Your task to perform on an android device: uninstall "Google Keep" Image 0: 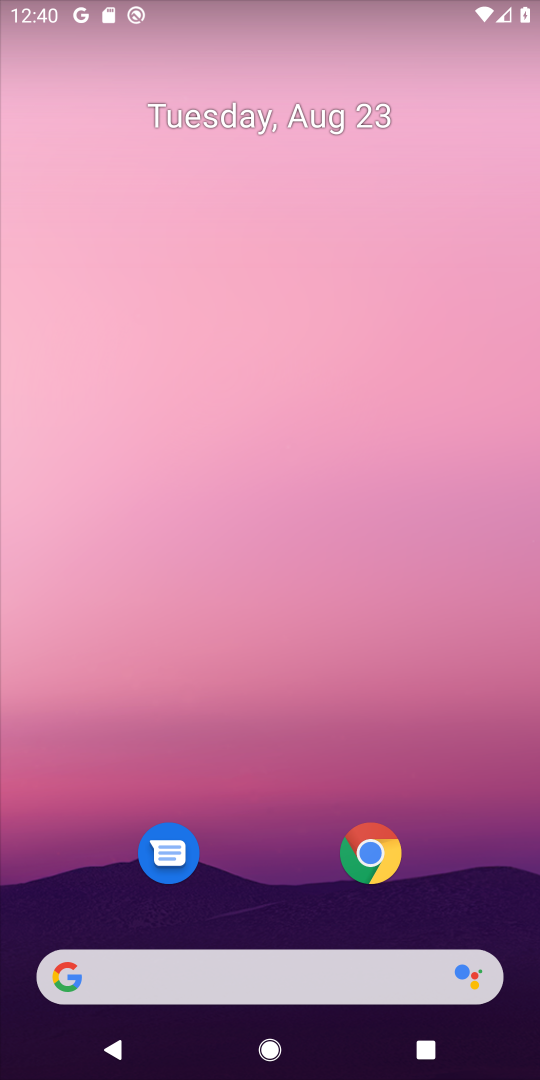
Step 0: drag from (499, 910) to (475, 221)
Your task to perform on an android device: uninstall "Google Keep" Image 1: 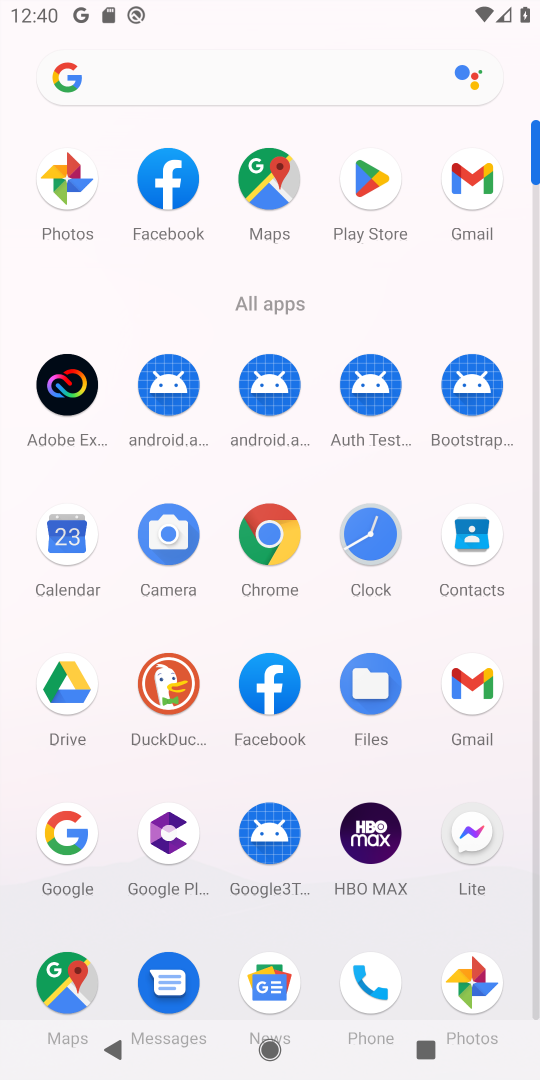
Step 1: drag from (312, 925) to (321, 520)
Your task to perform on an android device: uninstall "Google Keep" Image 2: 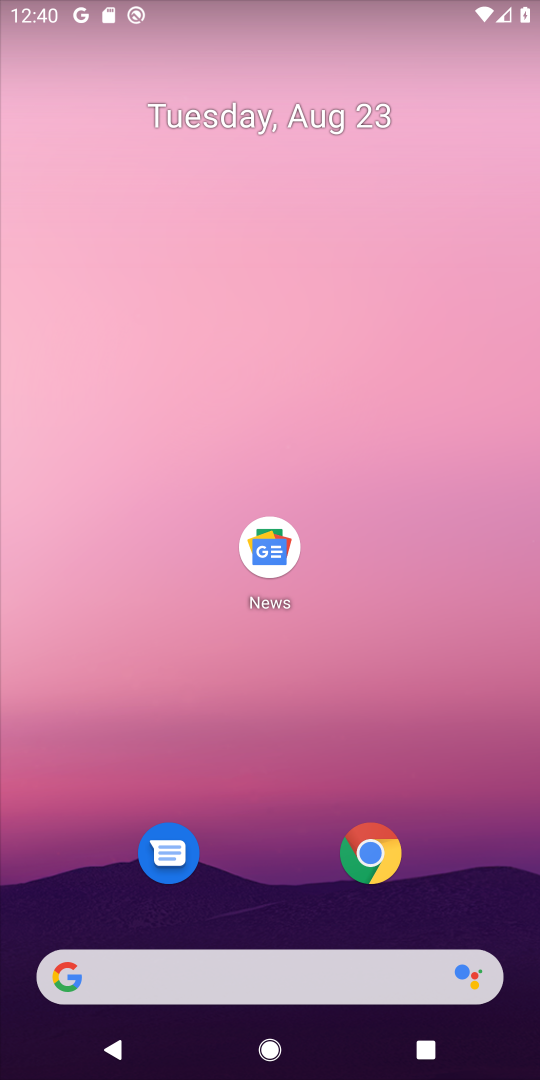
Step 2: drag from (434, 911) to (386, 66)
Your task to perform on an android device: uninstall "Google Keep" Image 3: 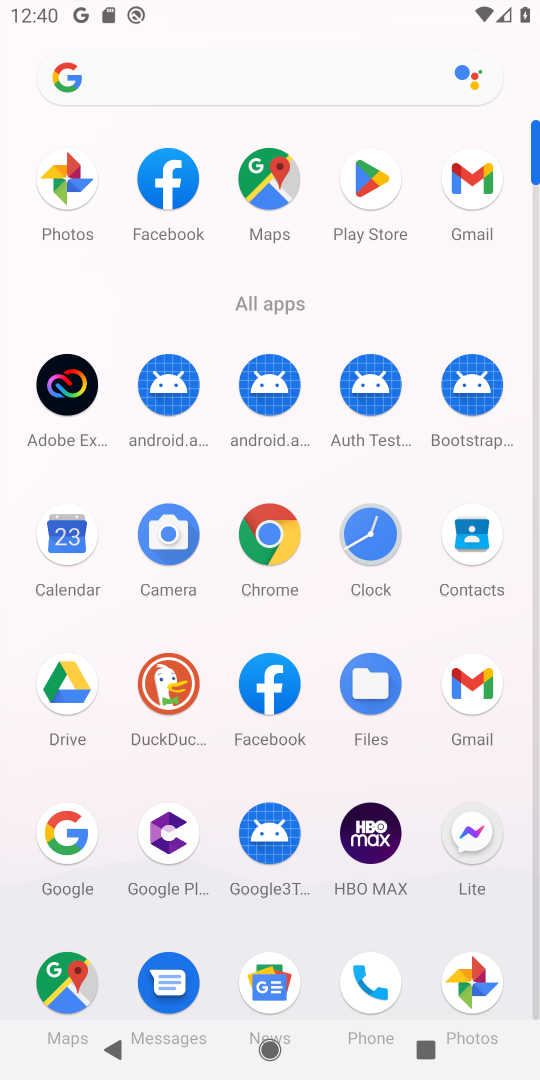
Step 3: drag from (317, 933) to (306, 306)
Your task to perform on an android device: uninstall "Google Keep" Image 4: 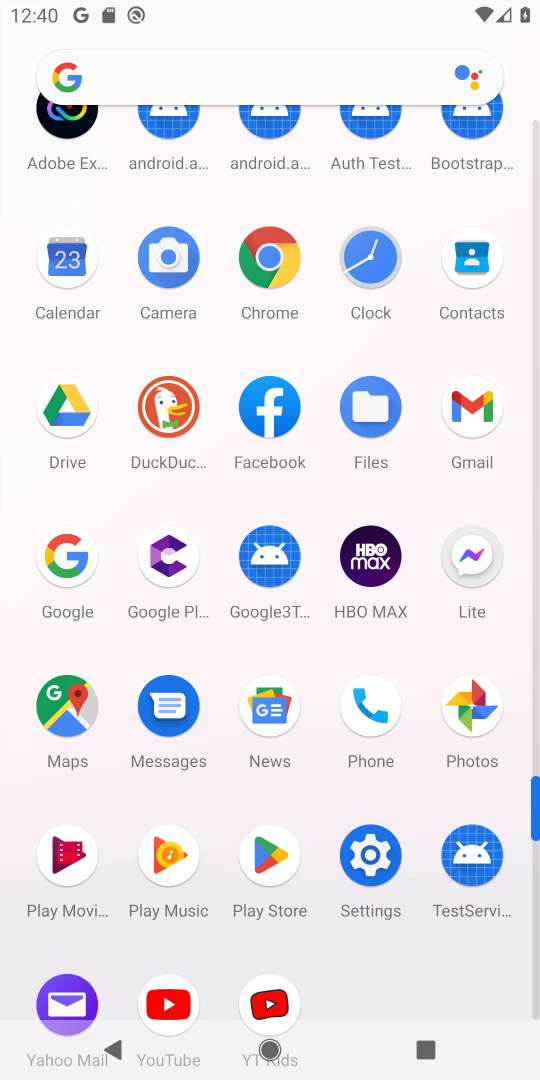
Step 4: click (272, 858)
Your task to perform on an android device: uninstall "Google Keep" Image 5: 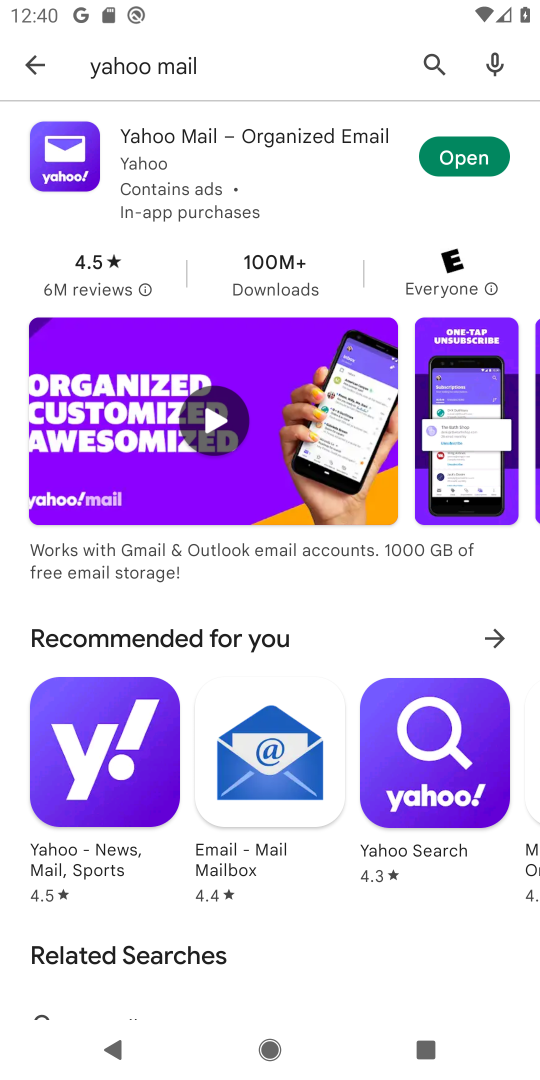
Step 5: click (435, 63)
Your task to perform on an android device: uninstall "Google Keep" Image 6: 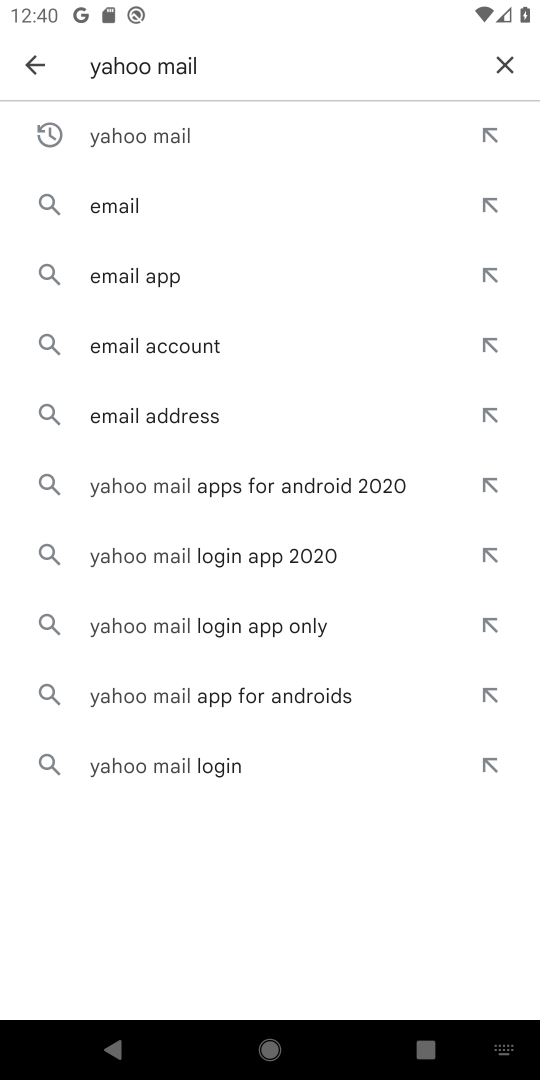
Step 6: click (501, 64)
Your task to perform on an android device: uninstall "Google Keep" Image 7: 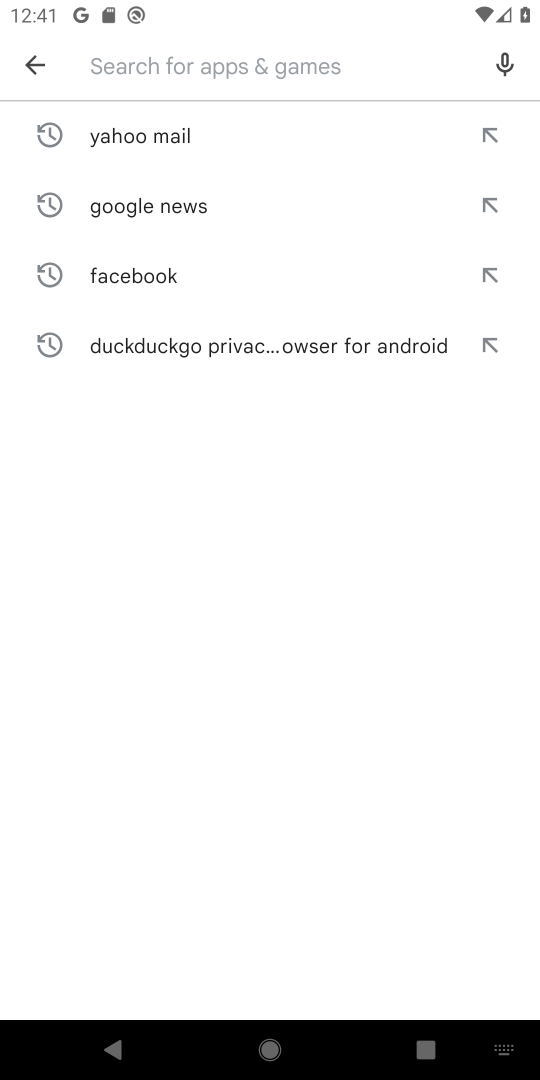
Step 7: type "Google Keep"
Your task to perform on an android device: uninstall "Google Keep" Image 8: 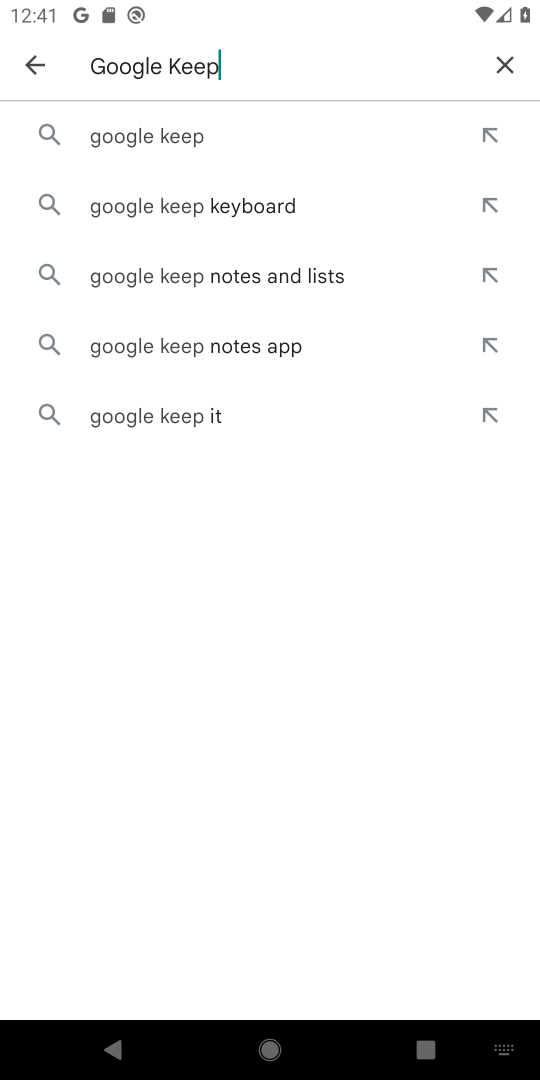
Step 8: click (196, 132)
Your task to perform on an android device: uninstall "Google Keep" Image 9: 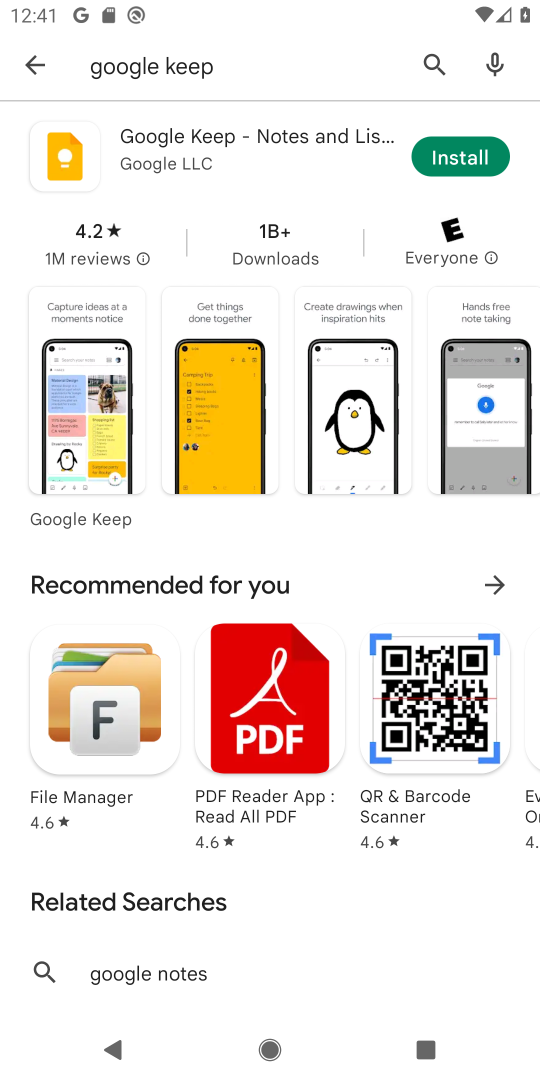
Step 9: task complete